Your task to perform on an android device: all mails in gmail Image 0: 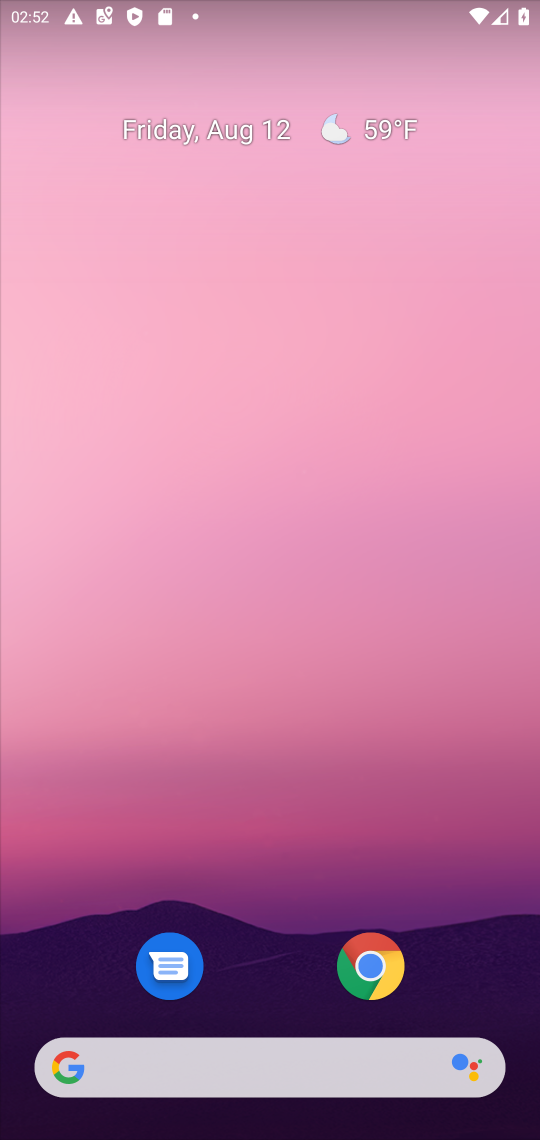
Step 0: drag from (272, 627) to (308, 100)
Your task to perform on an android device: all mails in gmail Image 1: 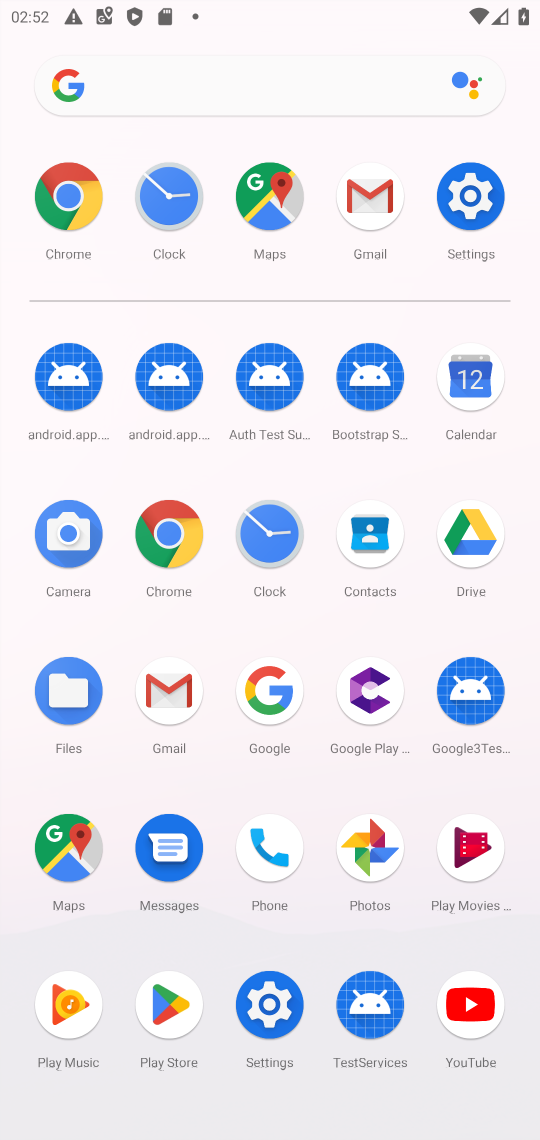
Step 1: click (176, 692)
Your task to perform on an android device: all mails in gmail Image 2: 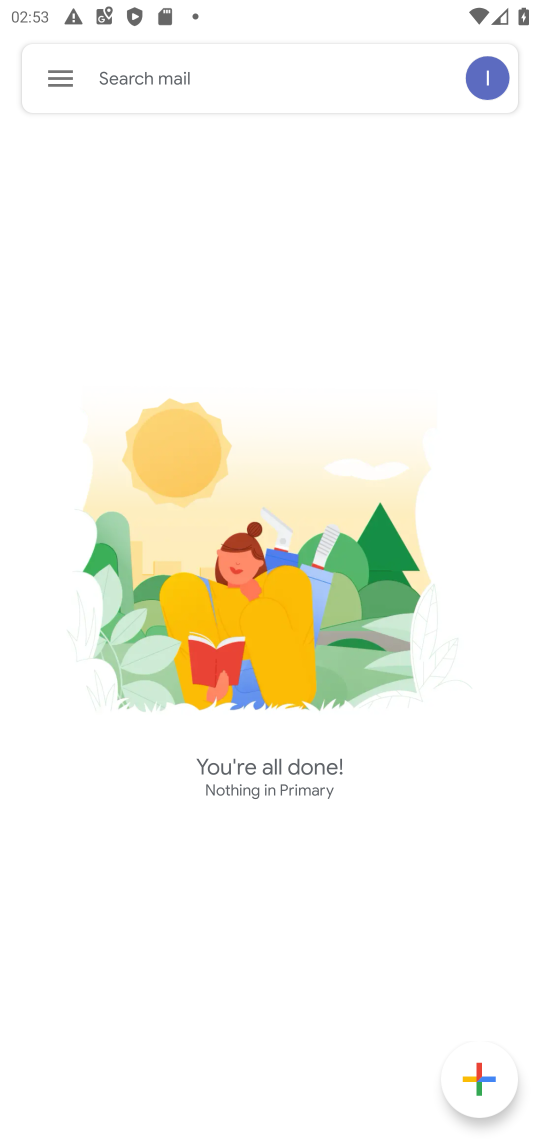
Step 2: click (53, 75)
Your task to perform on an android device: all mails in gmail Image 3: 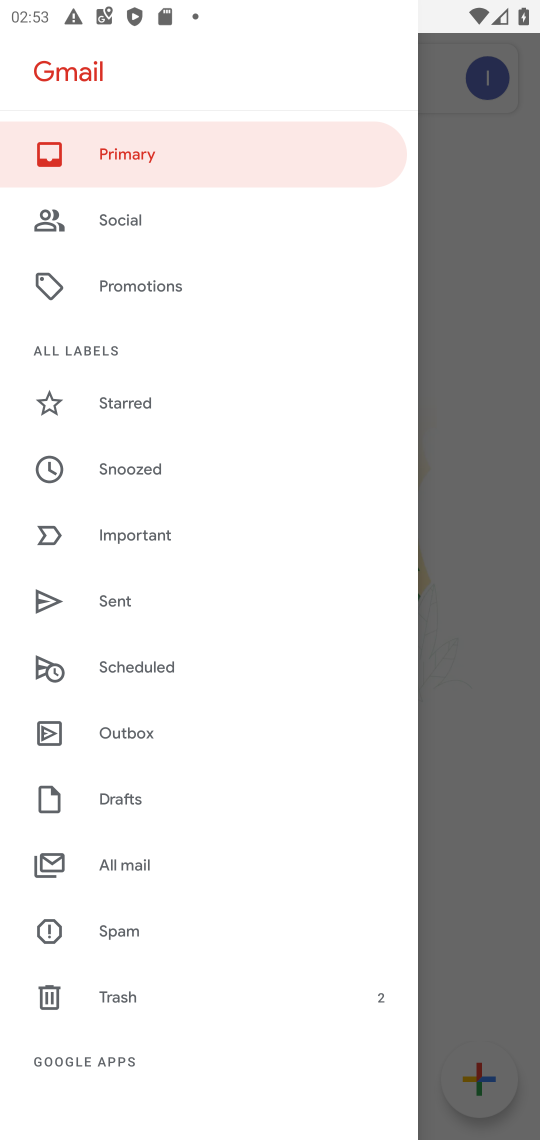
Step 3: click (126, 864)
Your task to perform on an android device: all mails in gmail Image 4: 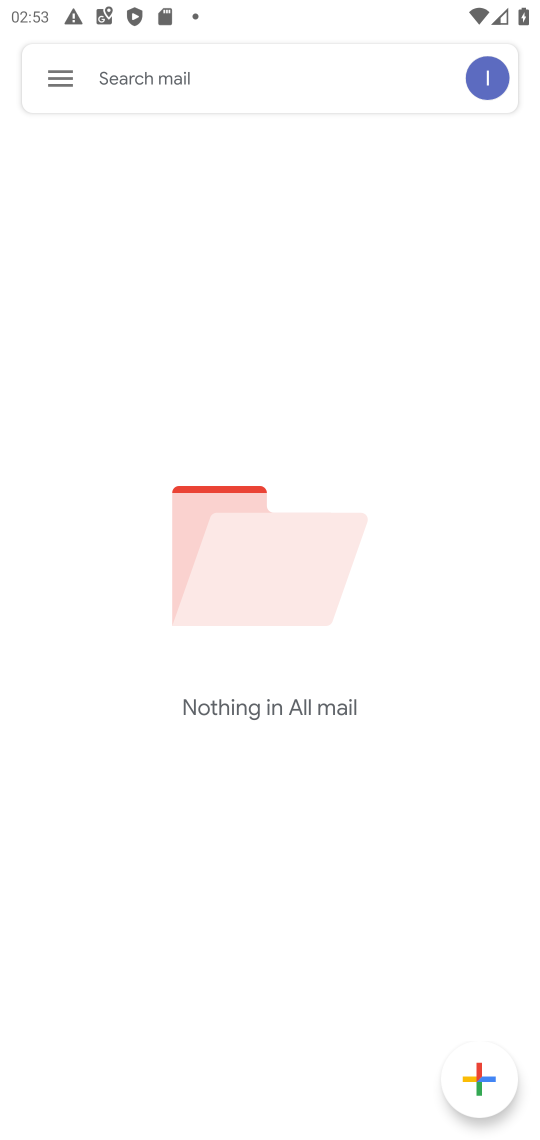
Step 4: task complete